Your task to perform on an android device: What's the weather going to be this weekend? Image 0: 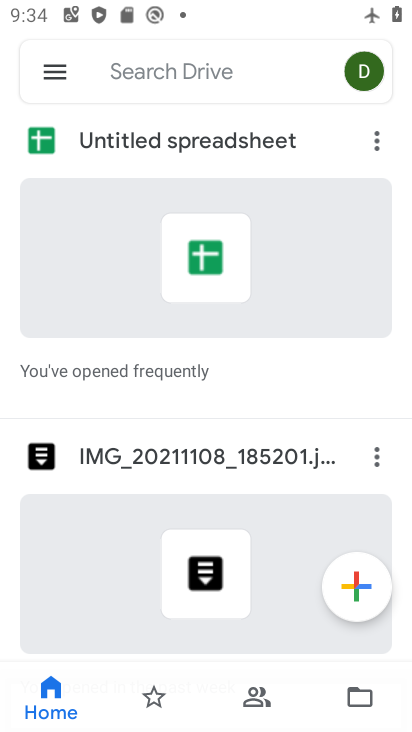
Step 0: press home button
Your task to perform on an android device: What's the weather going to be this weekend? Image 1: 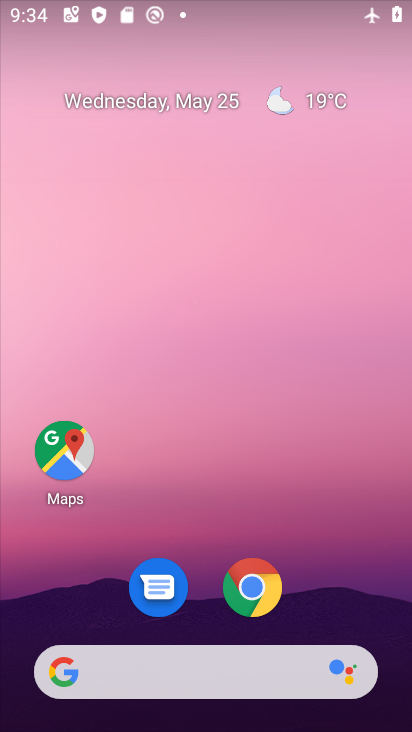
Step 1: click (316, 101)
Your task to perform on an android device: What's the weather going to be this weekend? Image 2: 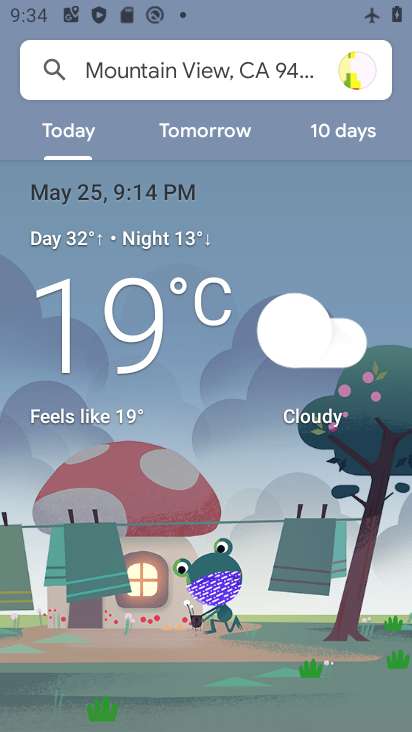
Step 2: click (340, 132)
Your task to perform on an android device: What's the weather going to be this weekend? Image 3: 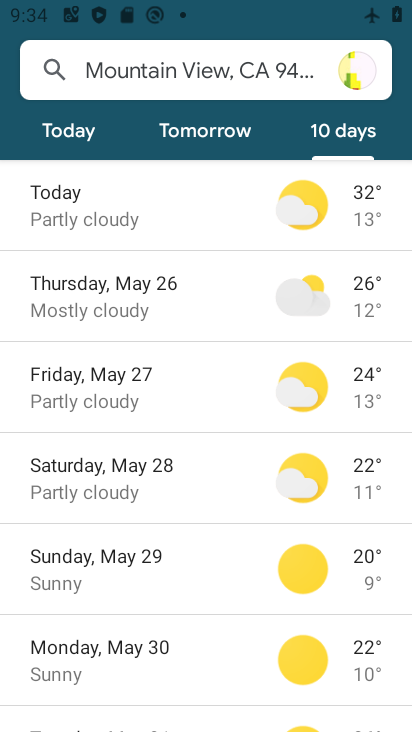
Step 3: task complete